Your task to perform on an android device: turn on translation in the chrome app Image 0: 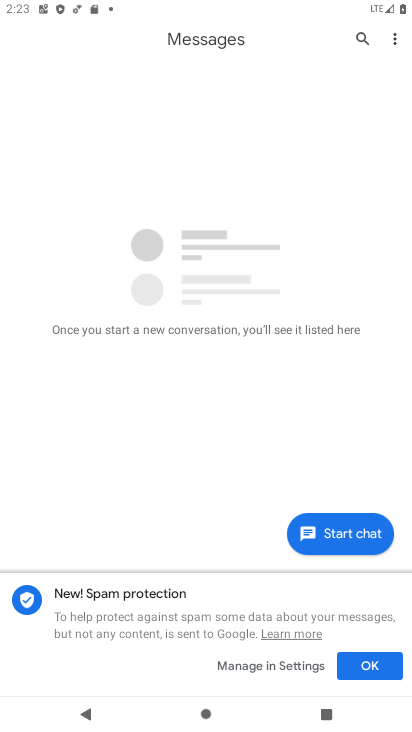
Step 0: press home button
Your task to perform on an android device: turn on translation in the chrome app Image 1: 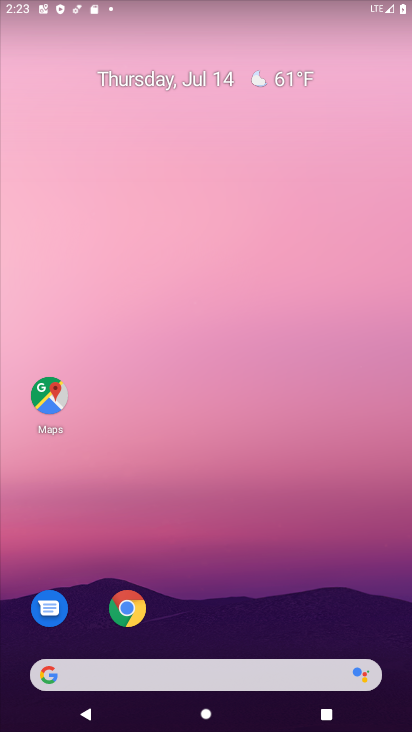
Step 1: click (129, 609)
Your task to perform on an android device: turn on translation in the chrome app Image 2: 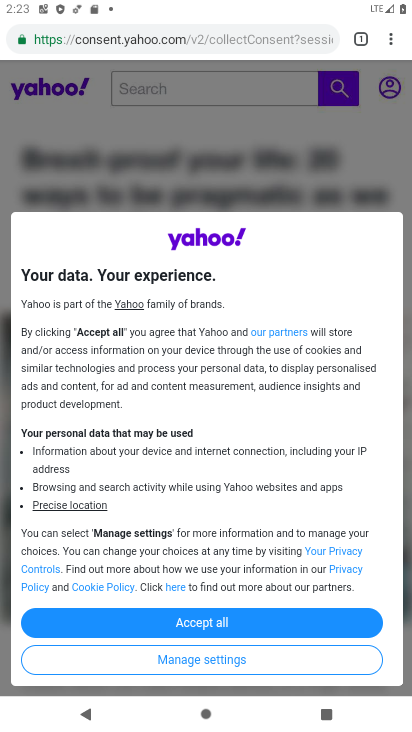
Step 2: click (391, 44)
Your task to perform on an android device: turn on translation in the chrome app Image 3: 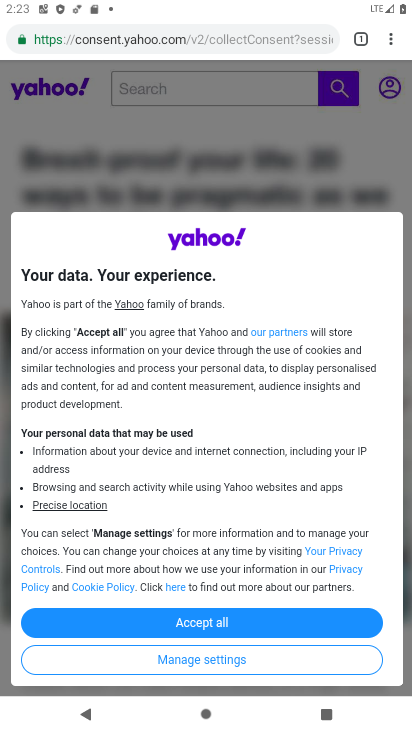
Step 3: click (391, 44)
Your task to perform on an android device: turn on translation in the chrome app Image 4: 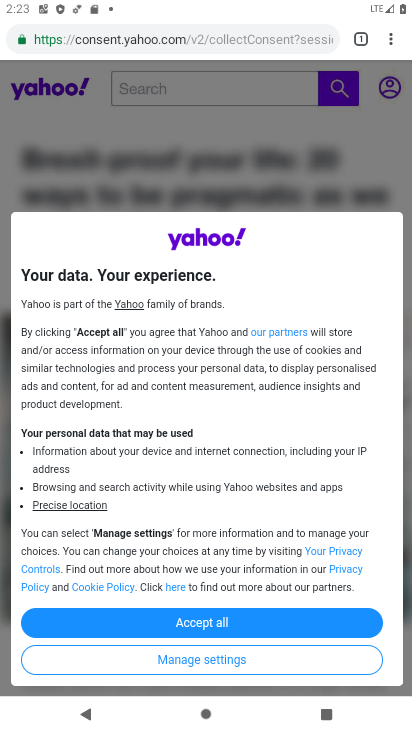
Step 4: click (391, 37)
Your task to perform on an android device: turn on translation in the chrome app Image 5: 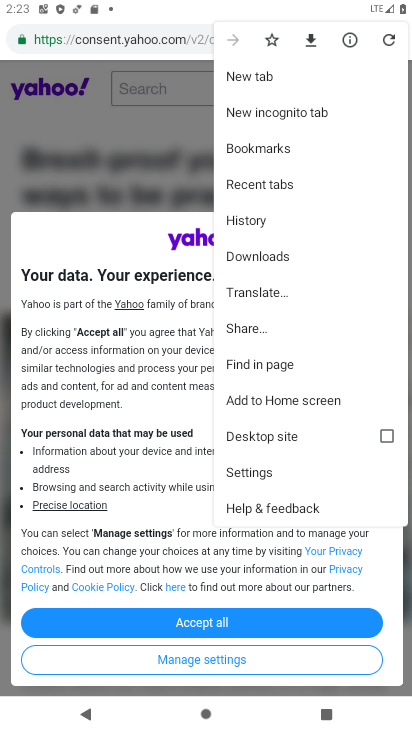
Step 5: click (253, 469)
Your task to perform on an android device: turn on translation in the chrome app Image 6: 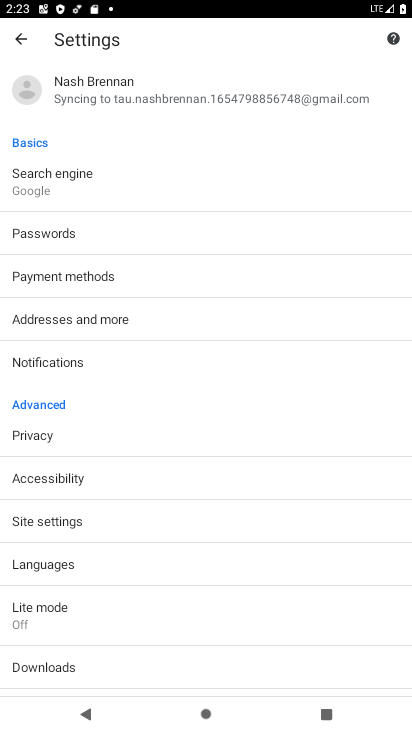
Step 6: click (39, 572)
Your task to perform on an android device: turn on translation in the chrome app Image 7: 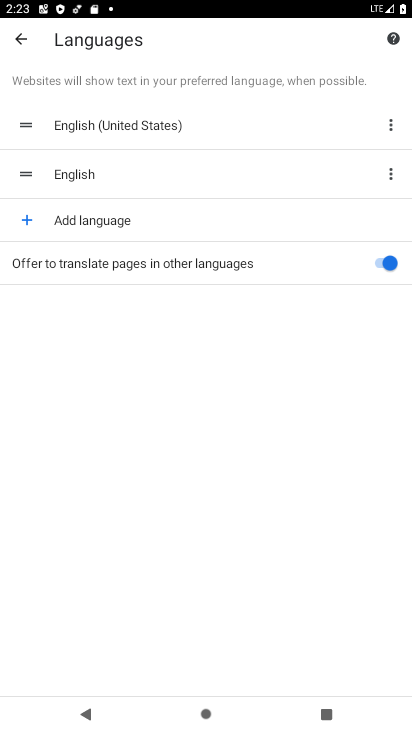
Step 7: task complete